Your task to perform on an android device: set default search engine in the chrome app Image 0: 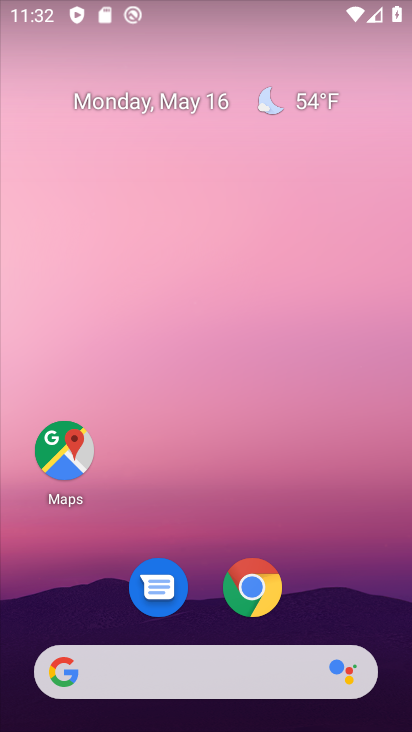
Step 0: click (253, 582)
Your task to perform on an android device: set default search engine in the chrome app Image 1: 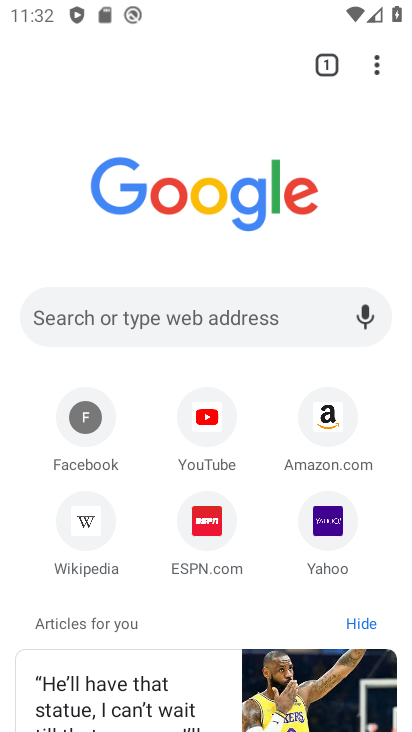
Step 1: click (372, 77)
Your task to perform on an android device: set default search engine in the chrome app Image 2: 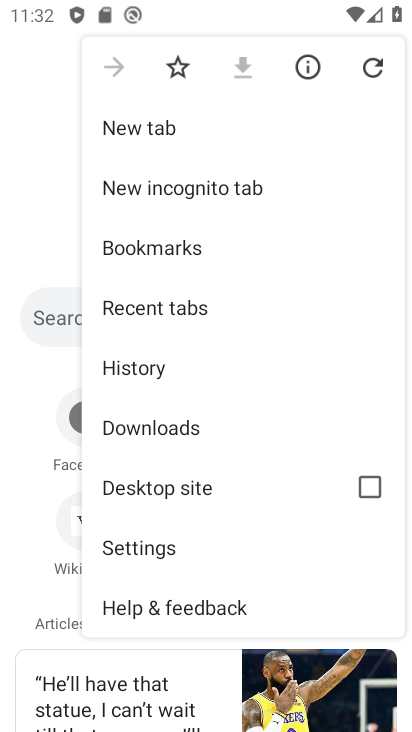
Step 2: click (174, 546)
Your task to perform on an android device: set default search engine in the chrome app Image 3: 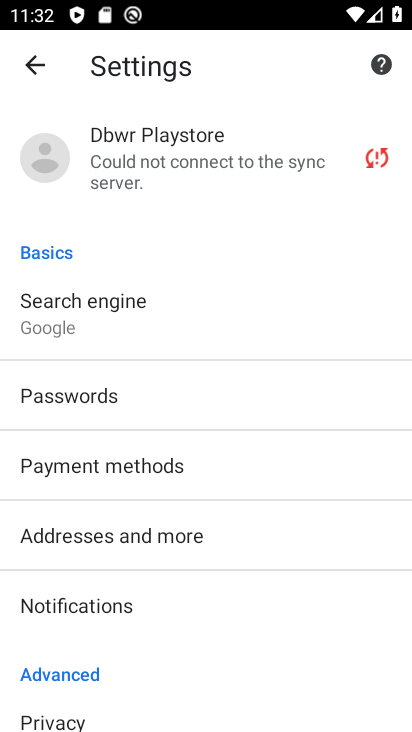
Step 3: click (87, 329)
Your task to perform on an android device: set default search engine in the chrome app Image 4: 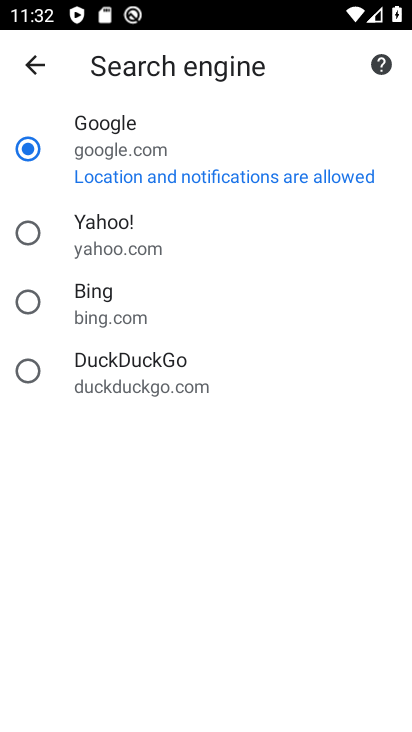
Step 4: task complete